Your task to perform on an android device: Add logitech g pro to the cart on target, then select checkout. Image 0: 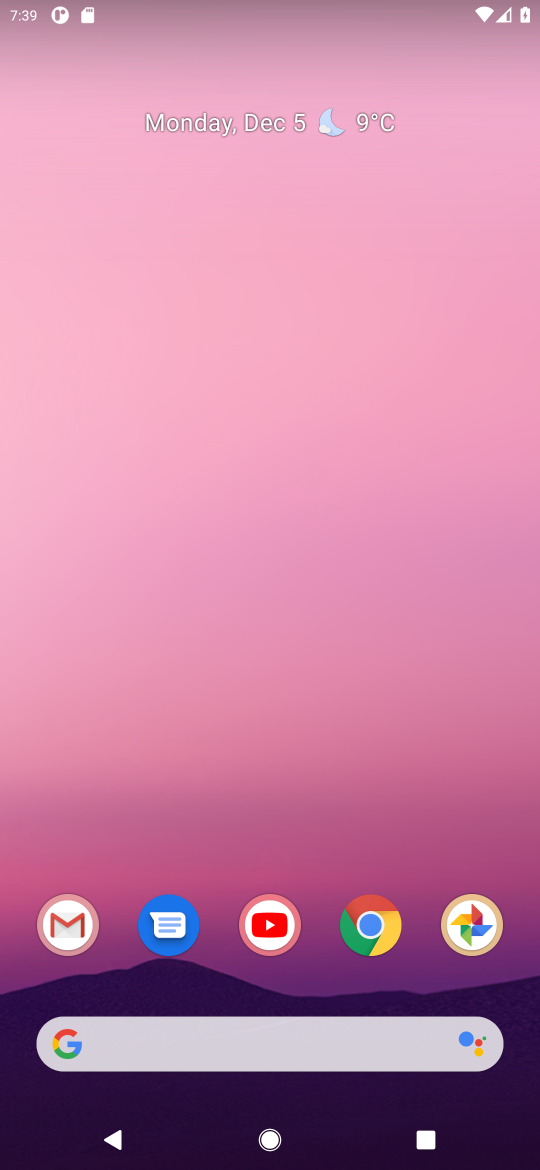
Step 0: click (373, 941)
Your task to perform on an android device: Add logitech g pro to the cart on target, then select checkout. Image 1: 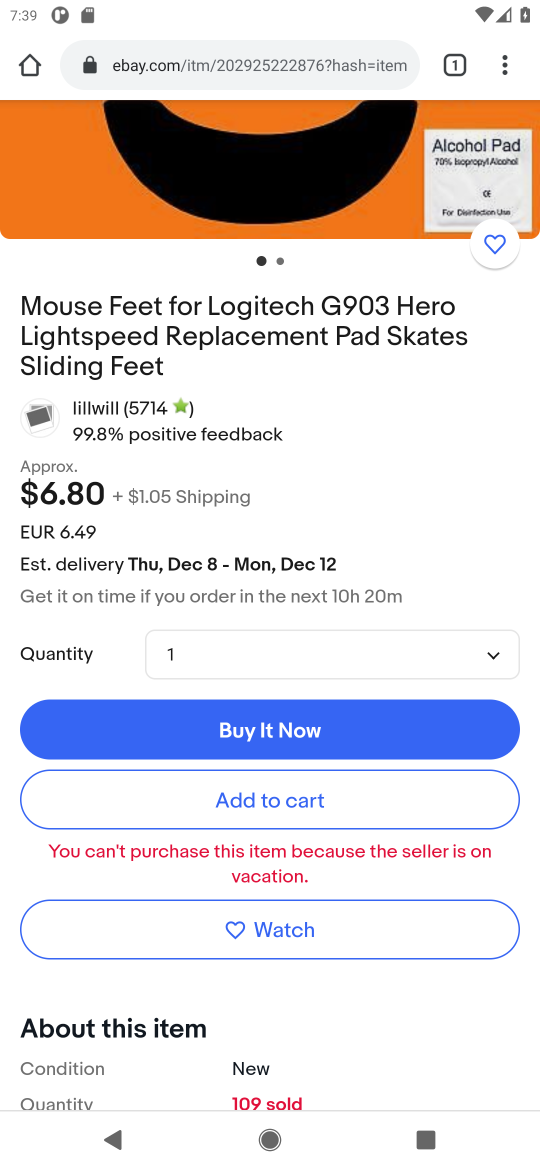
Step 1: click (237, 66)
Your task to perform on an android device: Add logitech g pro to the cart on target, then select checkout. Image 2: 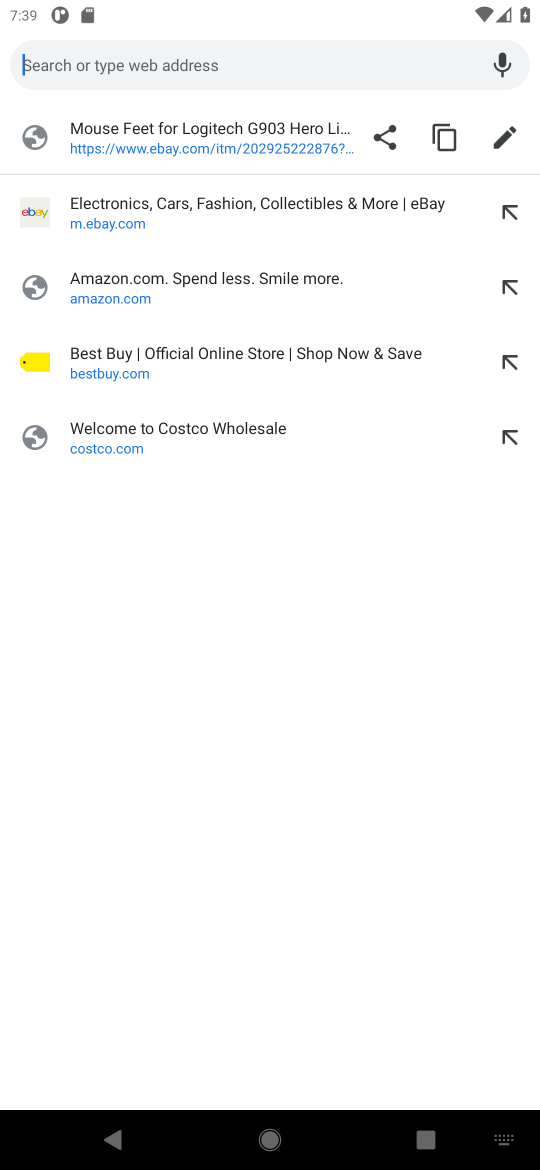
Step 2: type "target.com"
Your task to perform on an android device: Add logitech g pro to the cart on target, then select checkout. Image 3: 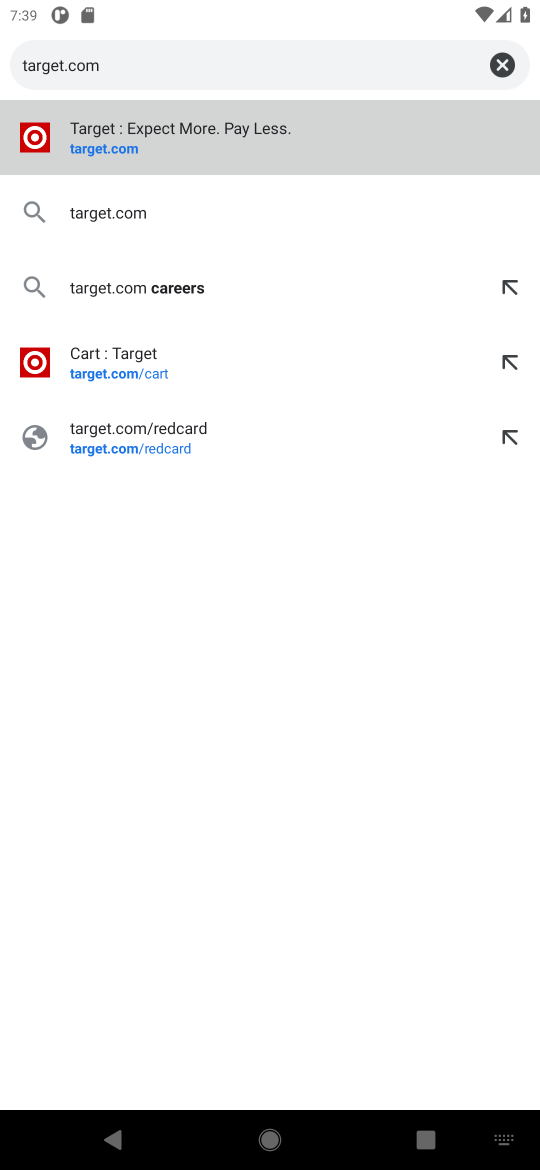
Step 3: click (91, 136)
Your task to perform on an android device: Add logitech g pro to the cart on target, then select checkout. Image 4: 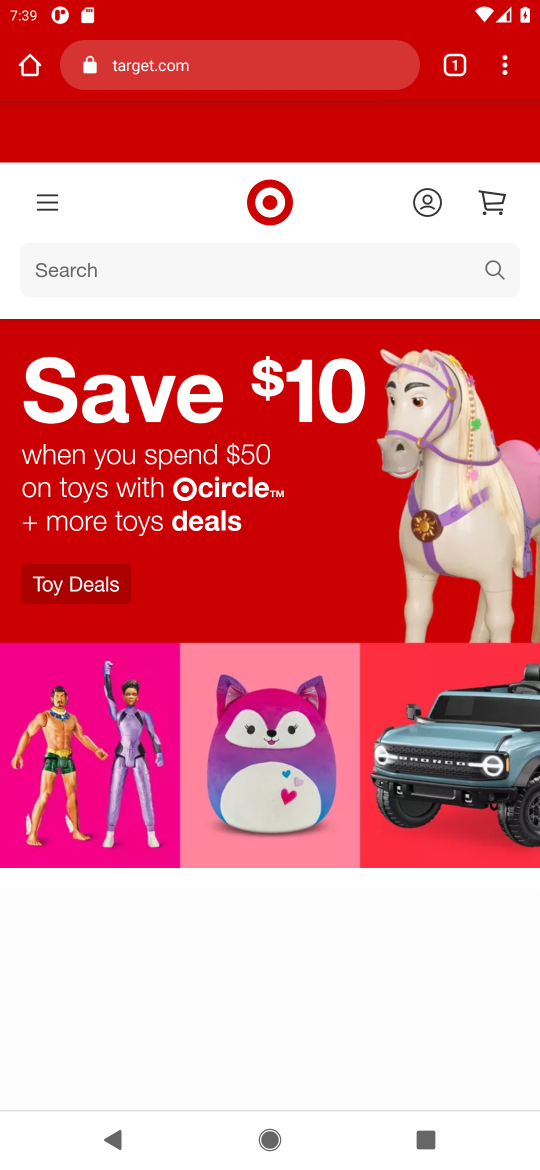
Step 4: click (76, 271)
Your task to perform on an android device: Add logitech g pro to the cart on target, then select checkout. Image 5: 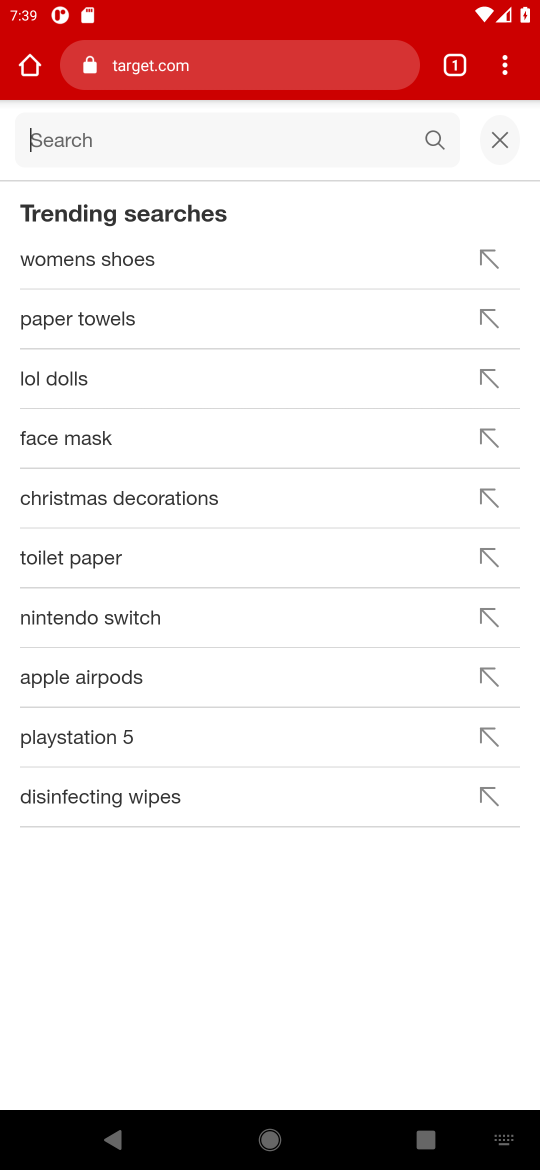
Step 5: type " logitech g pro"
Your task to perform on an android device: Add logitech g pro to the cart on target, then select checkout. Image 6: 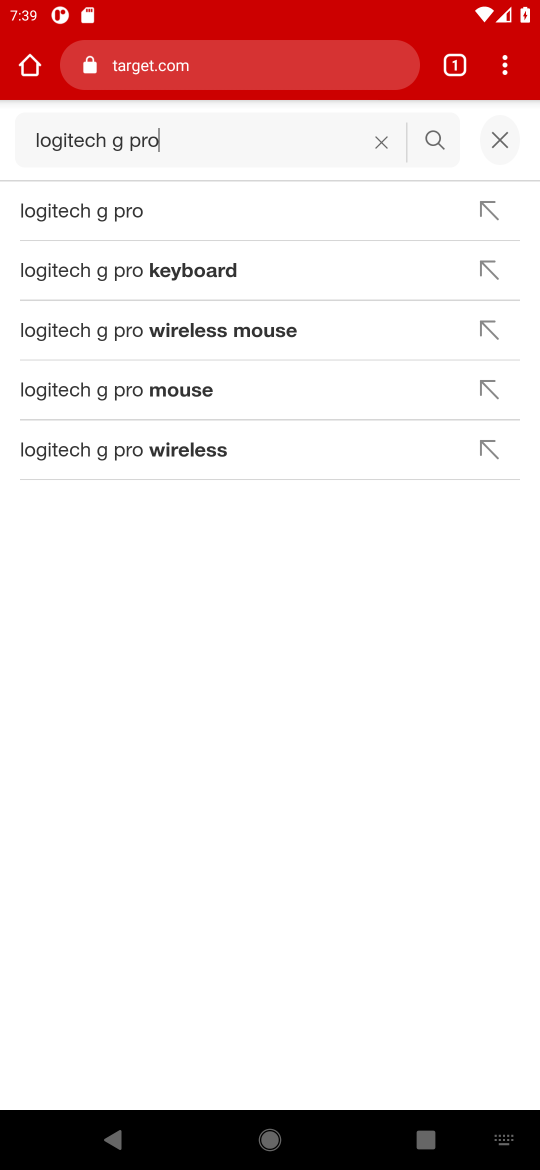
Step 6: click (80, 211)
Your task to perform on an android device: Add logitech g pro to the cart on target, then select checkout. Image 7: 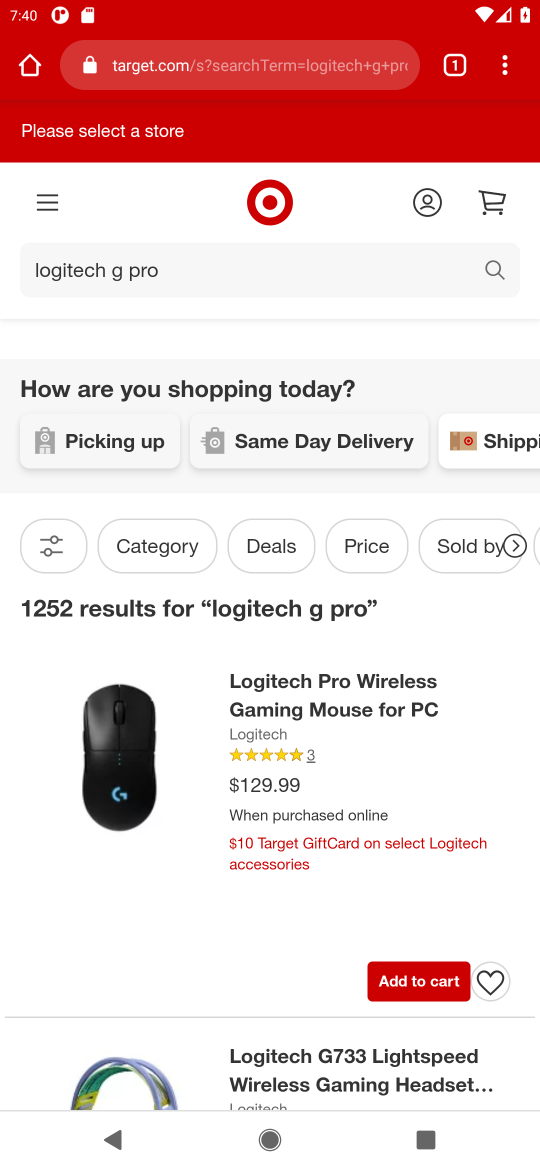
Step 7: task complete